Your task to perform on an android device: Open Google Chrome and click the shortcut for Amazon.com Image 0: 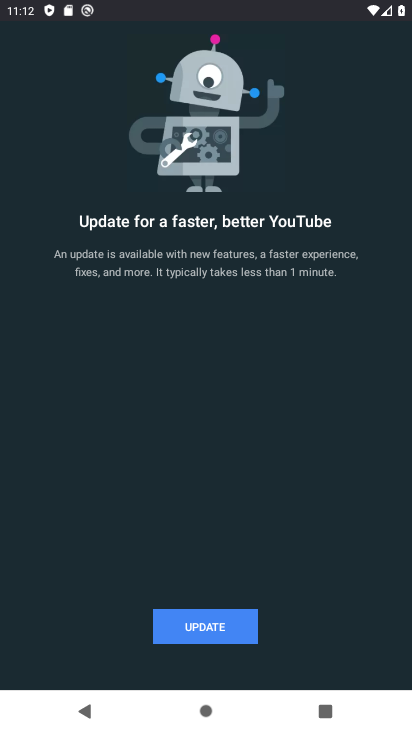
Step 0: press back button
Your task to perform on an android device: Open Google Chrome and click the shortcut for Amazon.com Image 1: 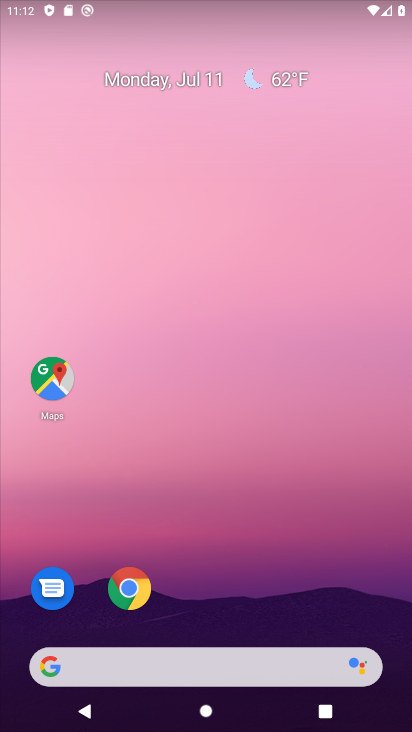
Step 1: click (152, 584)
Your task to perform on an android device: Open Google Chrome and click the shortcut for Amazon.com Image 2: 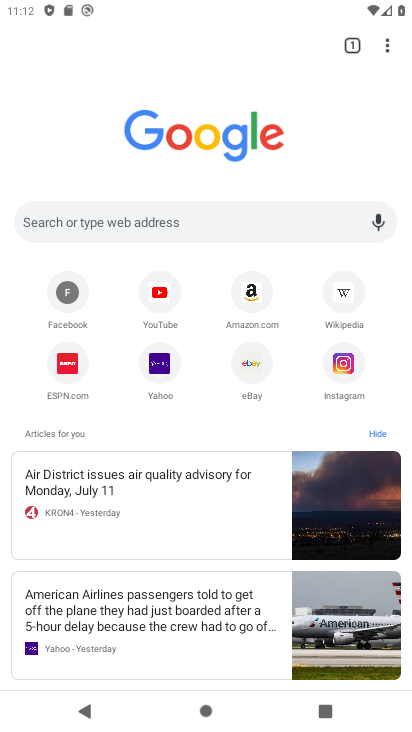
Step 2: click (251, 291)
Your task to perform on an android device: Open Google Chrome and click the shortcut for Amazon.com Image 3: 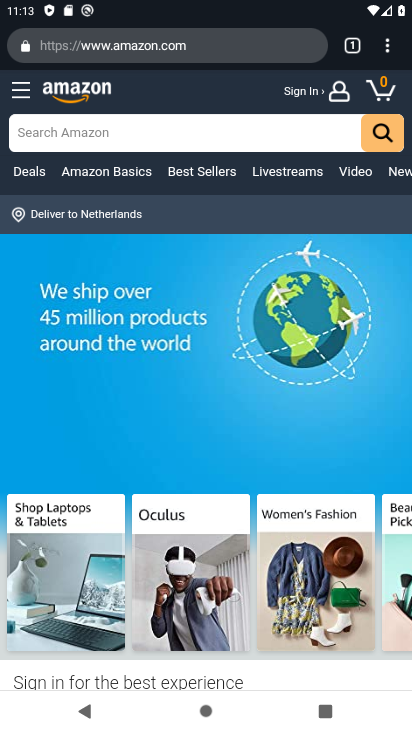
Step 3: task complete